Your task to perform on an android device: create a new album in the google photos Image 0: 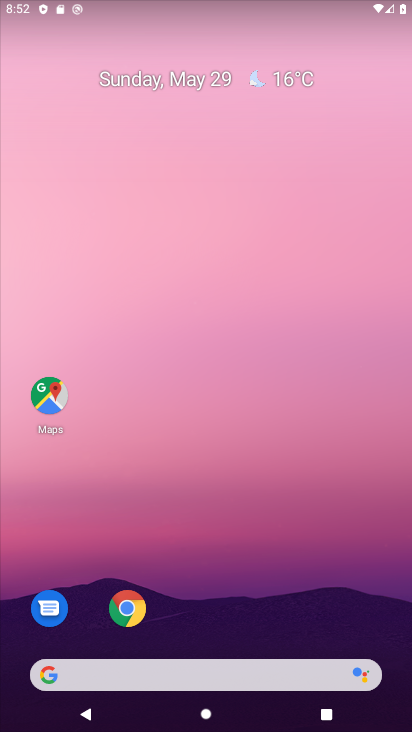
Step 0: drag from (226, 605) to (150, 15)
Your task to perform on an android device: create a new album in the google photos Image 1: 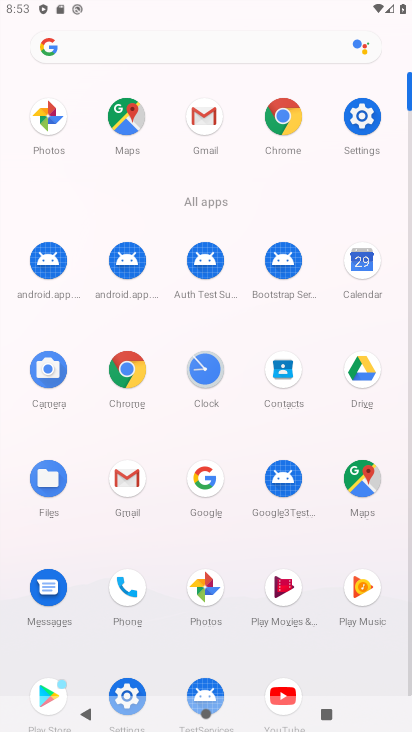
Step 1: click (47, 114)
Your task to perform on an android device: create a new album in the google photos Image 2: 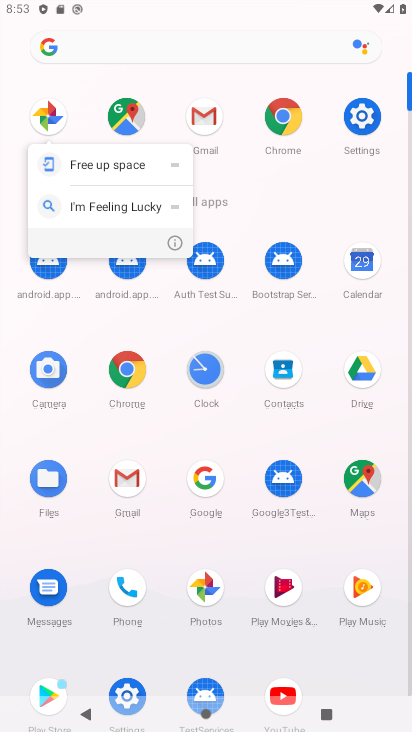
Step 2: click (47, 116)
Your task to perform on an android device: create a new album in the google photos Image 3: 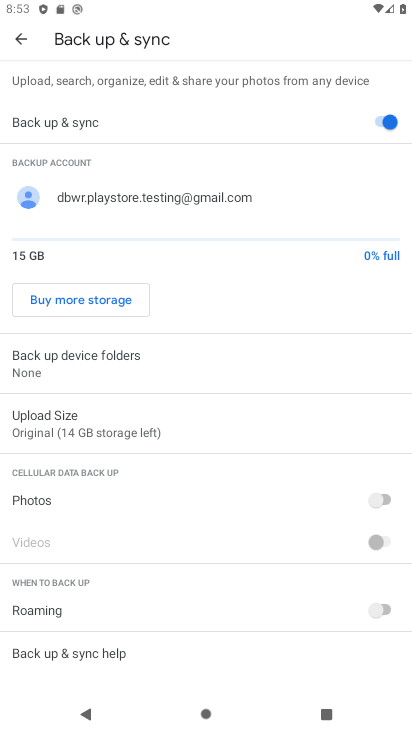
Step 3: click (27, 34)
Your task to perform on an android device: create a new album in the google photos Image 4: 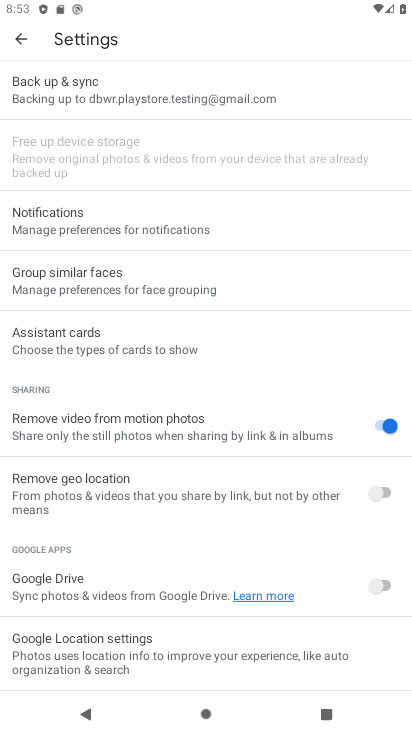
Step 4: click (22, 41)
Your task to perform on an android device: create a new album in the google photos Image 5: 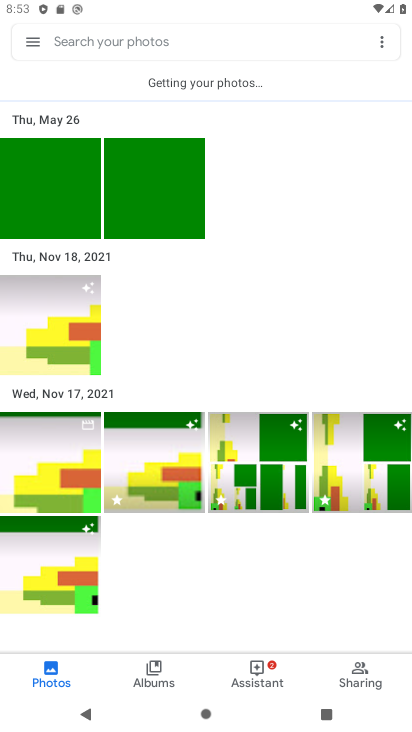
Step 5: click (138, 672)
Your task to perform on an android device: create a new album in the google photos Image 6: 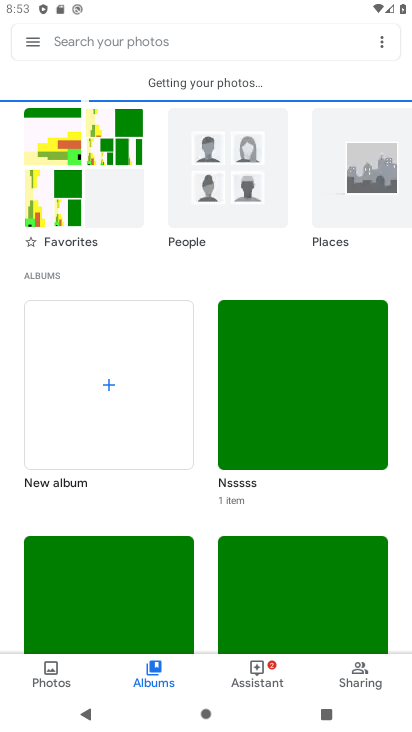
Step 6: click (114, 382)
Your task to perform on an android device: create a new album in the google photos Image 7: 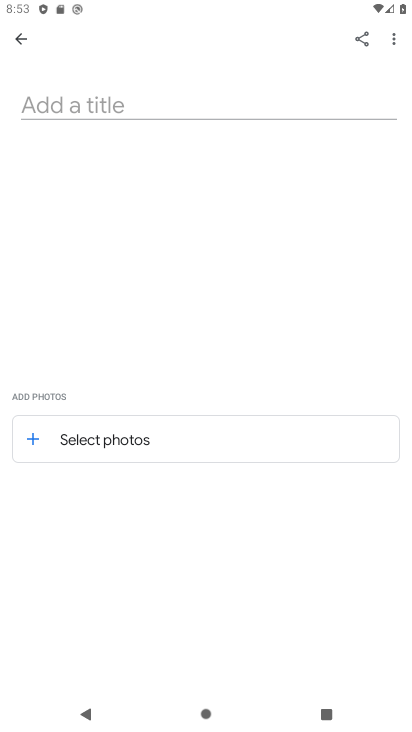
Step 7: click (170, 83)
Your task to perform on an android device: create a new album in the google photos Image 8: 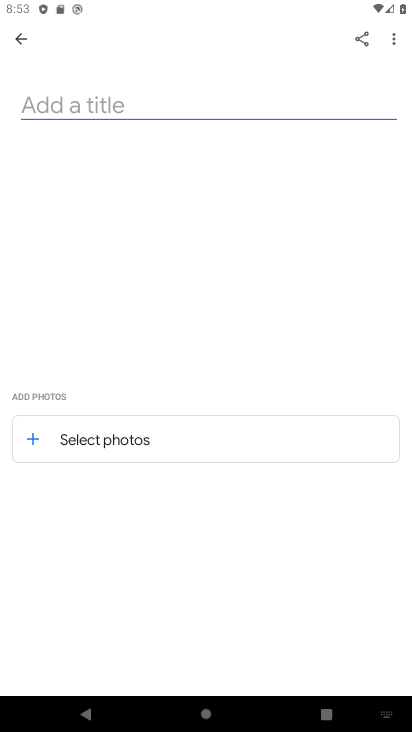
Step 8: type "Arundhati"
Your task to perform on an android device: create a new album in the google photos Image 9: 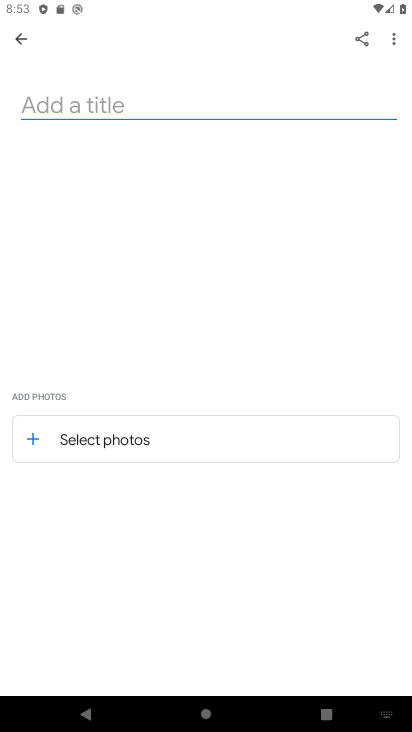
Step 9: click (73, 438)
Your task to perform on an android device: create a new album in the google photos Image 10: 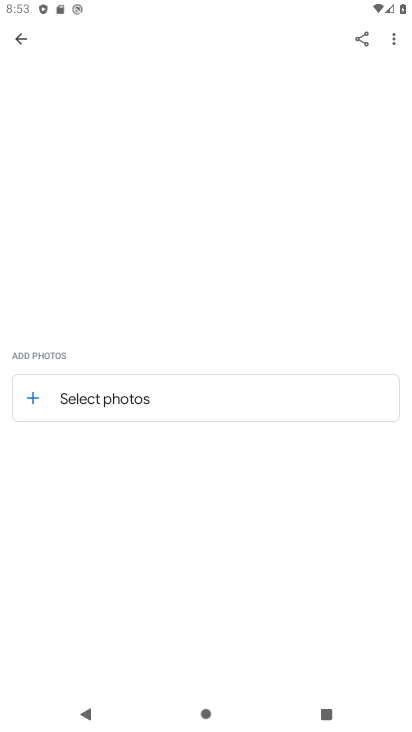
Step 10: click (98, 404)
Your task to perform on an android device: create a new album in the google photos Image 11: 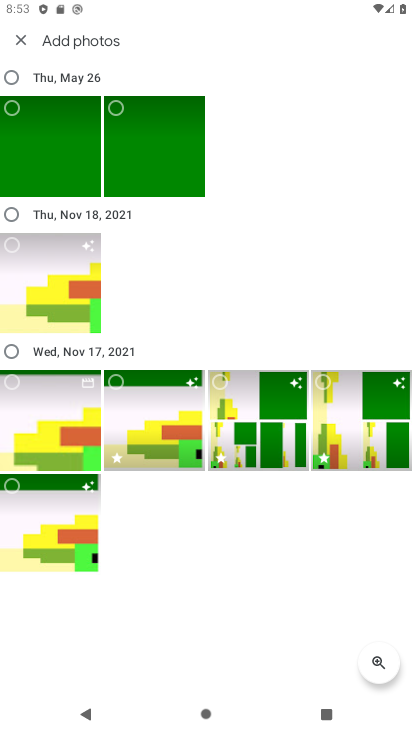
Step 11: click (13, 73)
Your task to perform on an android device: create a new album in the google photos Image 12: 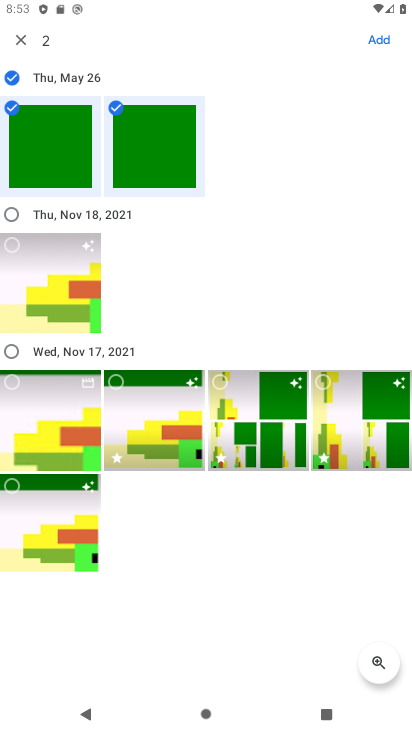
Step 12: click (377, 43)
Your task to perform on an android device: create a new album in the google photos Image 13: 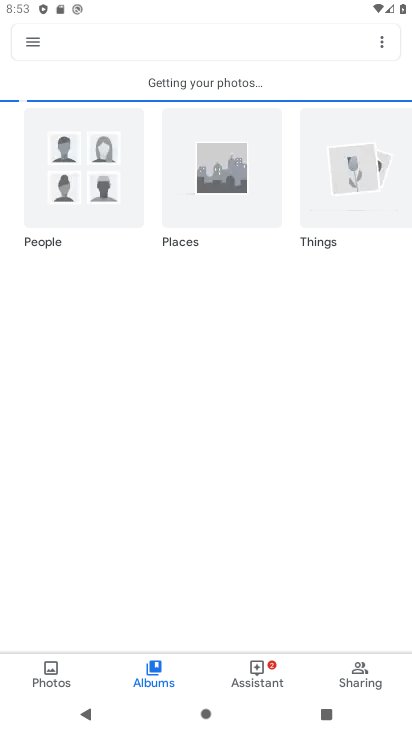
Step 13: task complete